Your task to perform on an android device: create a new album in the google photos Image 0: 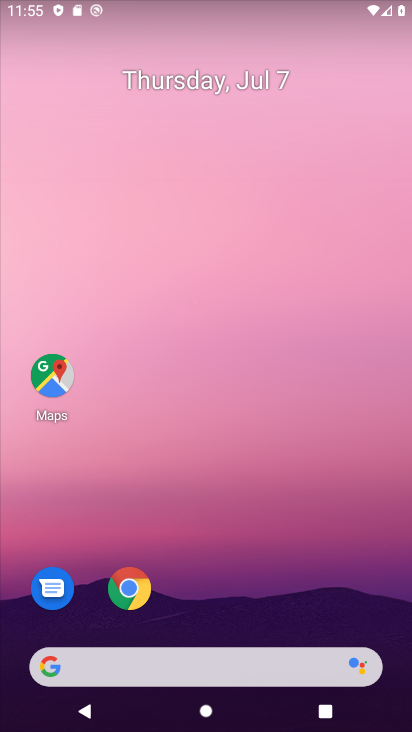
Step 0: drag from (193, 481) to (198, 16)
Your task to perform on an android device: create a new album in the google photos Image 1: 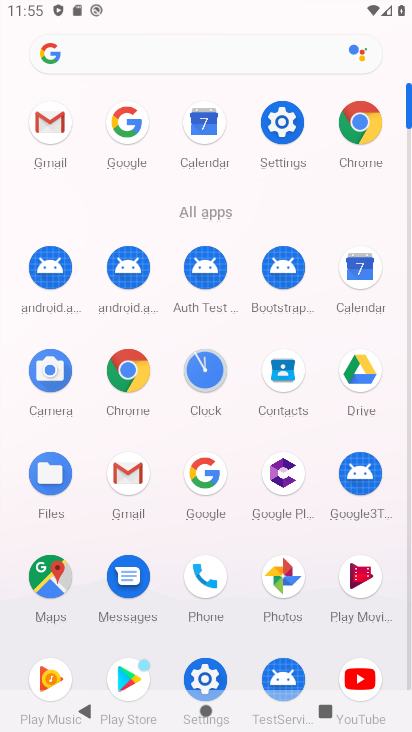
Step 1: click (276, 578)
Your task to perform on an android device: create a new album in the google photos Image 2: 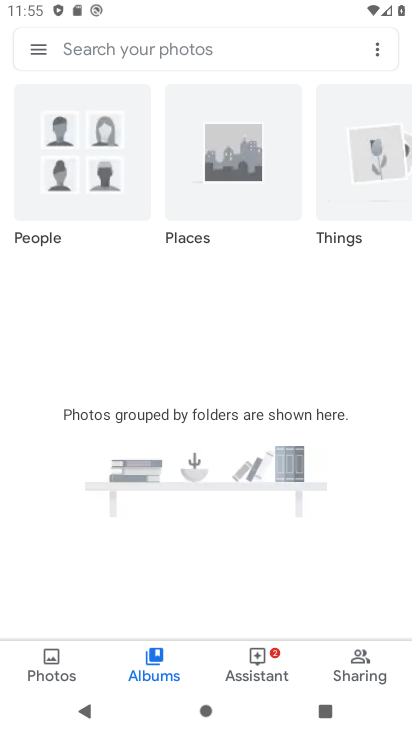
Step 2: task complete